Your task to perform on an android device: choose inbox layout in the gmail app Image 0: 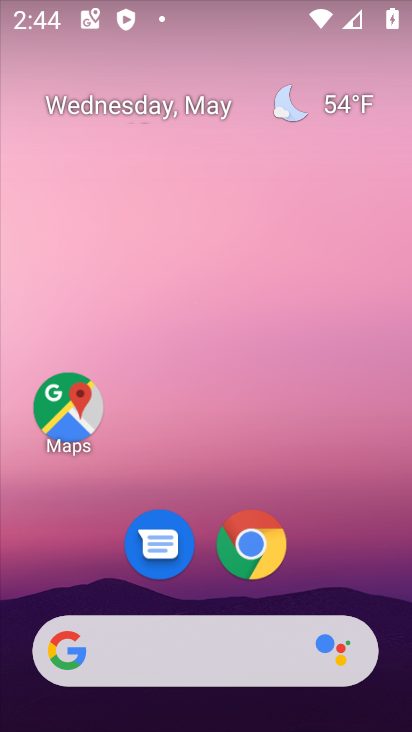
Step 0: drag from (343, 557) to (308, 88)
Your task to perform on an android device: choose inbox layout in the gmail app Image 1: 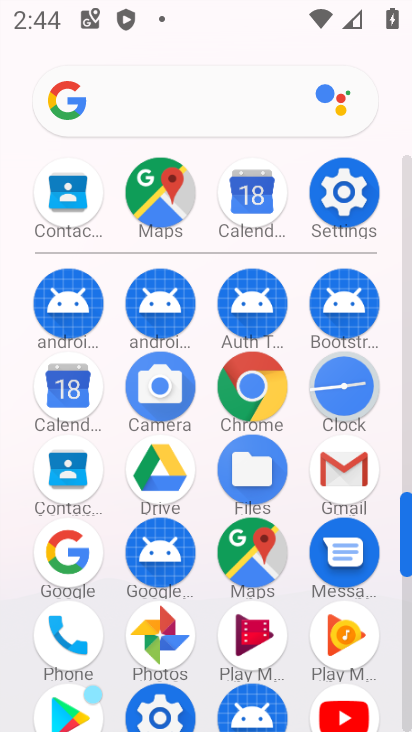
Step 1: click (362, 491)
Your task to perform on an android device: choose inbox layout in the gmail app Image 2: 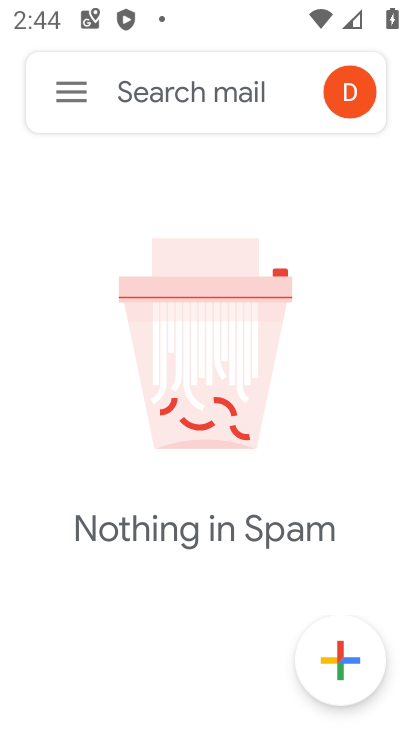
Step 2: click (87, 117)
Your task to perform on an android device: choose inbox layout in the gmail app Image 3: 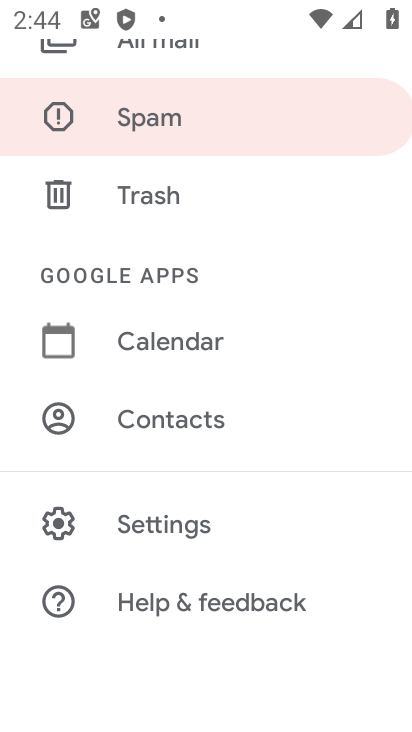
Step 3: click (228, 529)
Your task to perform on an android device: choose inbox layout in the gmail app Image 4: 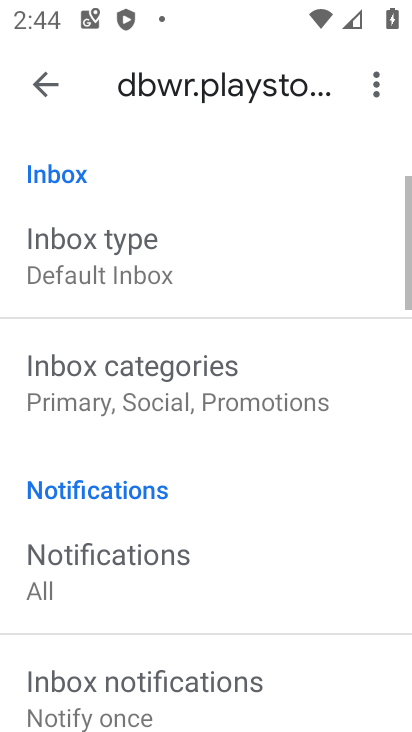
Step 4: drag from (228, 529) to (222, 619)
Your task to perform on an android device: choose inbox layout in the gmail app Image 5: 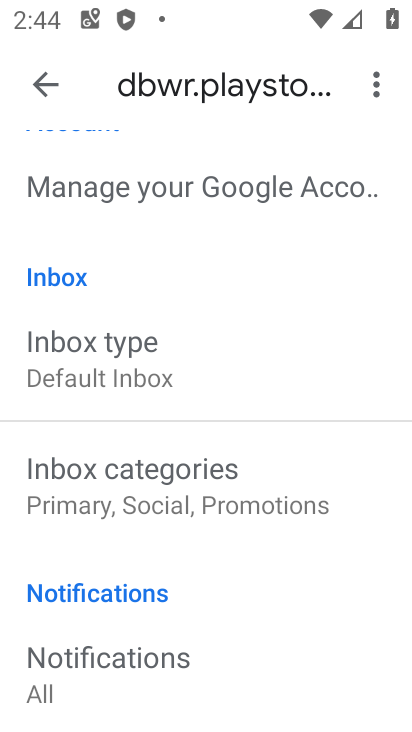
Step 5: click (124, 370)
Your task to perform on an android device: choose inbox layout in the gmail app Image 6: 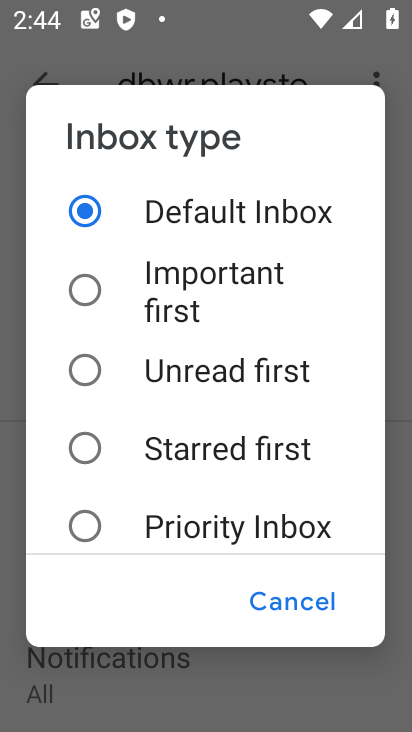
Step 6: click (102, 232)
Your task to perform on an android device: choose inbox layout in the gmail app Image 7: 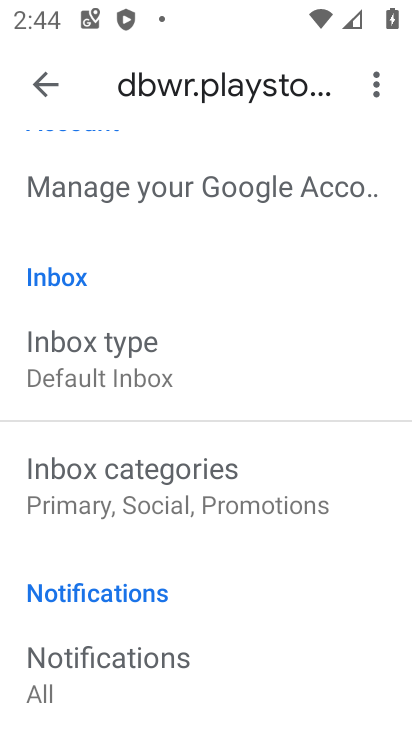
Step 7: click (29, 122)
Your task to perform on an android device: choose inbox layout in the gmail app Image 8: 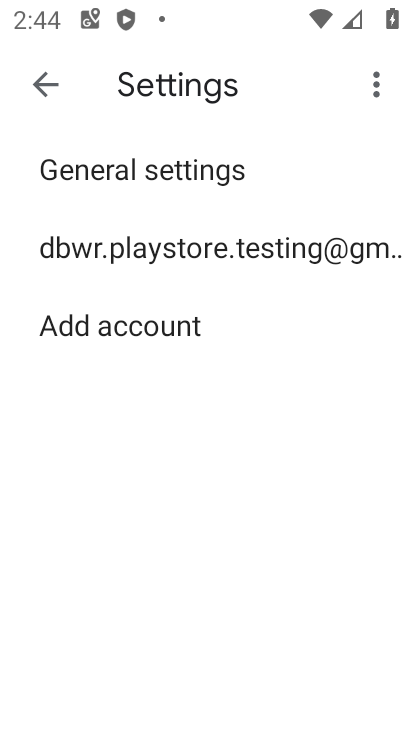
Step 8: task complete